Your task to perform on an android device: find which apps use the phone's location Image 0: 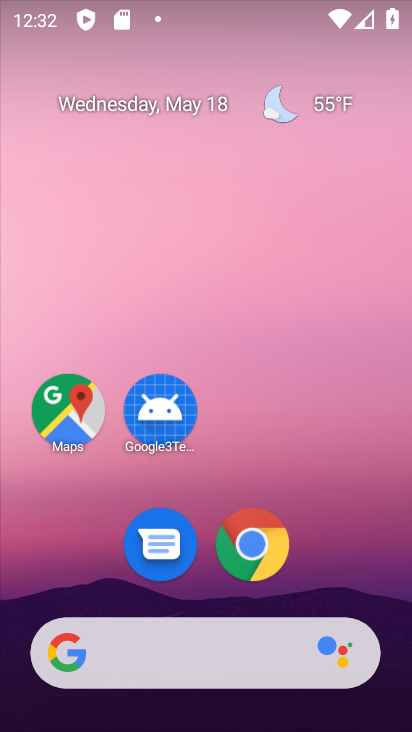
Step 0: drag from (224, 583) to (267, 81)
Your task to perform on an android device: find which apps use the phone's location Image 1: 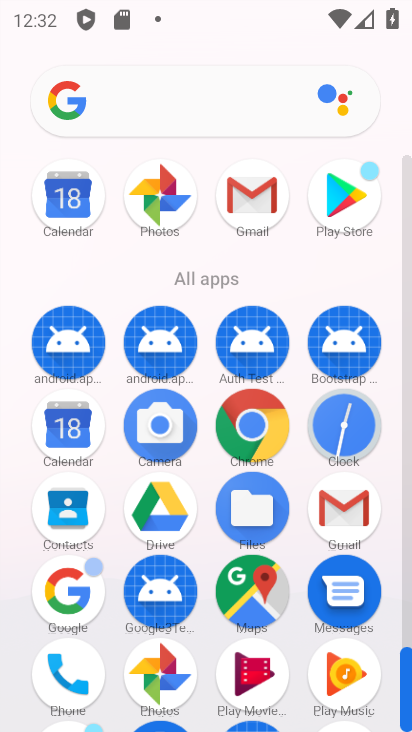
Step 1: drag from (198, 615) to (201, 393)
Your task to perform on an android device: find which apps use the phone's location Image 2: 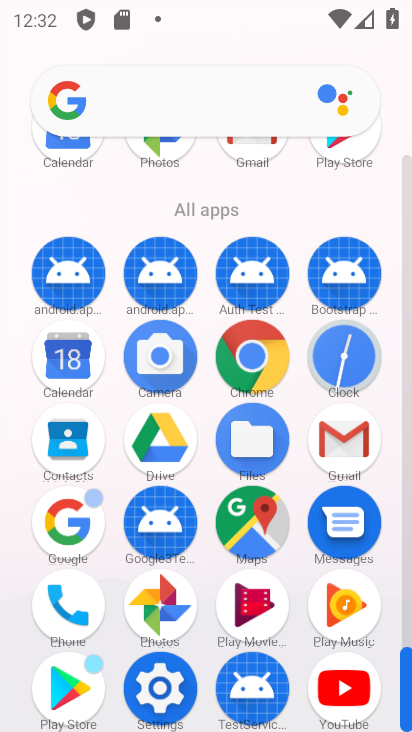
Step 2: click (173, 696)
Your task to perform on an android device: find which apps use the phone's location Image 3: 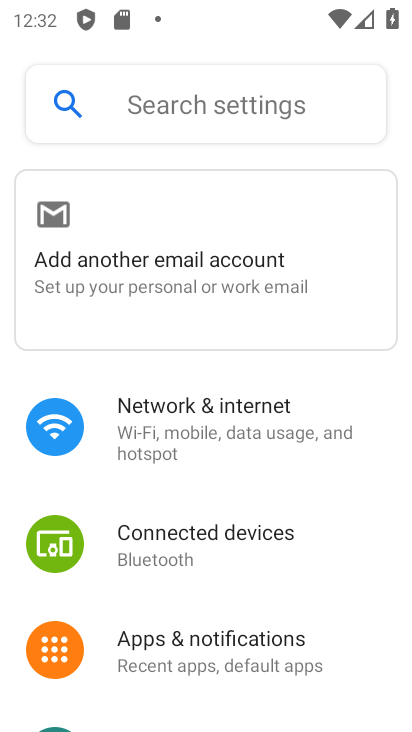
Step 3: drag from (194, 568) to (230, 301)
Your task to perform on an android device: find which apps use the phone's location Image 4: 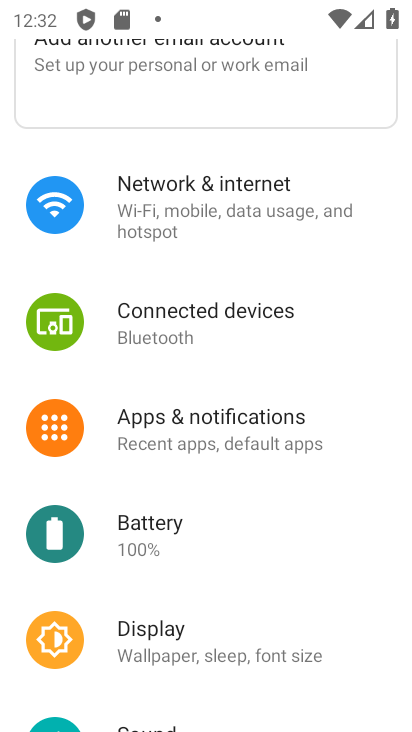
Step 4: drag from (156, 680) to (222, 268)
Your task to perform on an android device: find which apps use the phone's location Image 5: 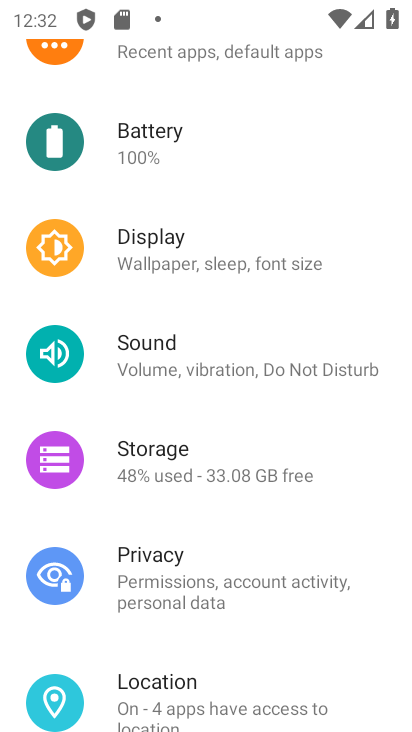
Step 5: click (177, 685)
Your task to perform on an android device: find which apps use the phone's location Image 6: 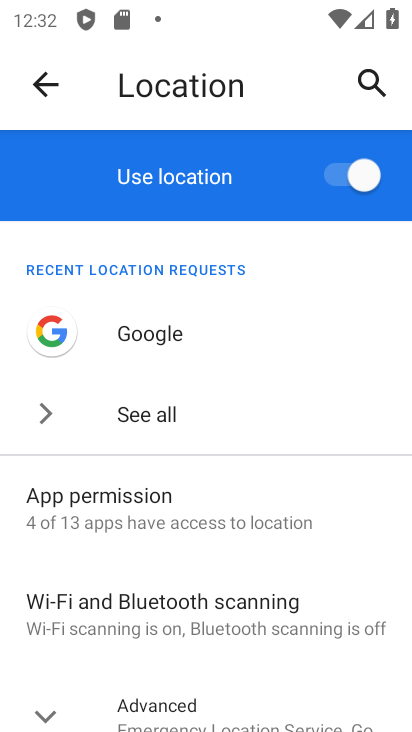
Step 6: click (166, 537)
Your task to perform on an android device: find which apps use the phone's location Image 7: 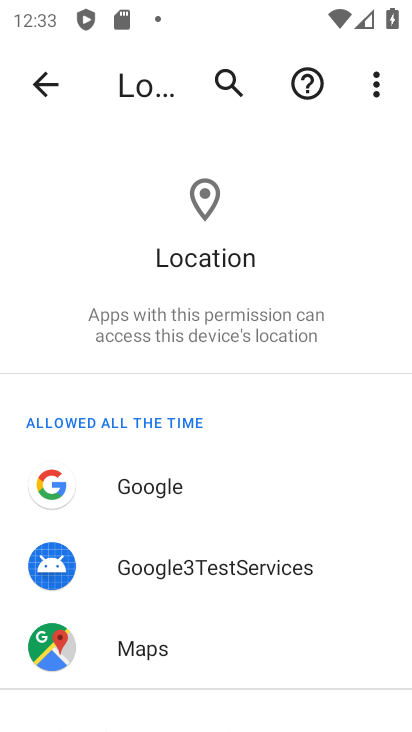
Step 7: task complete